Your task to perform on an android device: change the upload size in google photos Image 0: 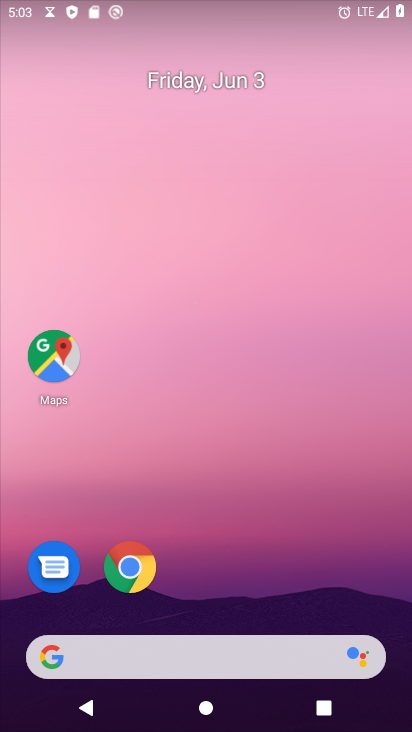
Step 0: drag from (287, 569) to (243, 116)
Your task to perform on an android device: change the upload size in google photos Image 1: 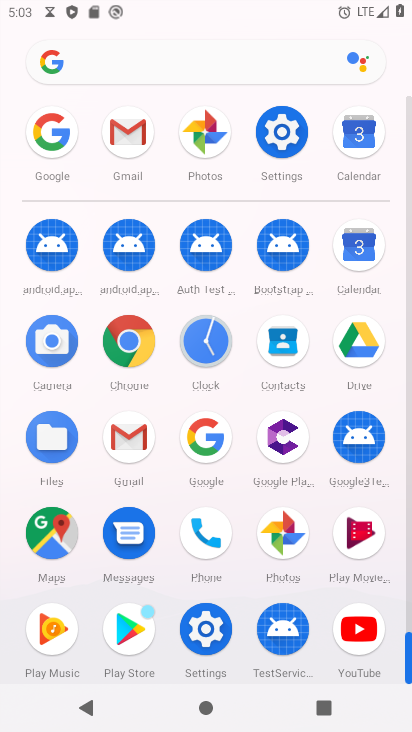
Step 1: click (208, 133)
Your task to perform on an android device: change the upload size in google photos Image 2: 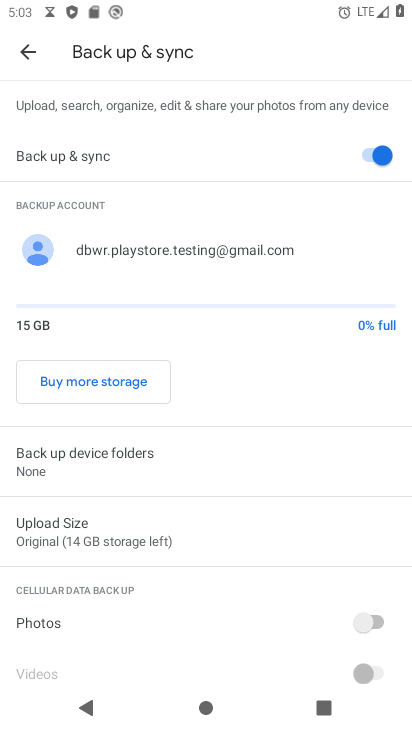
Step 2: click (67, 539)
Your task to perform on an android device: change the upload size in google photos Image 3: 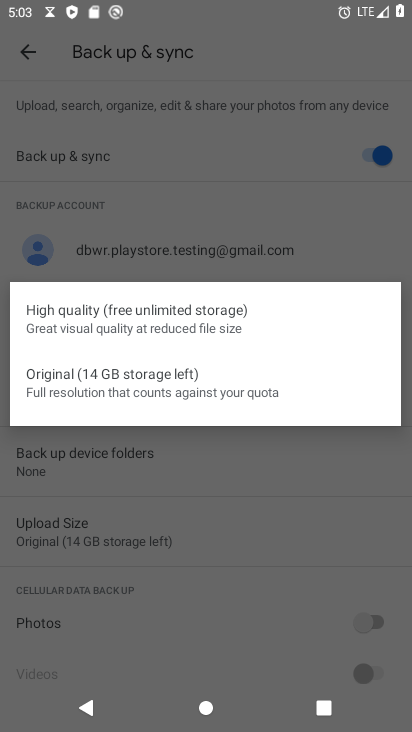
Step 3: click (85, 309)
Your task to perform on an android device: change the upload size in google photos Image 4: 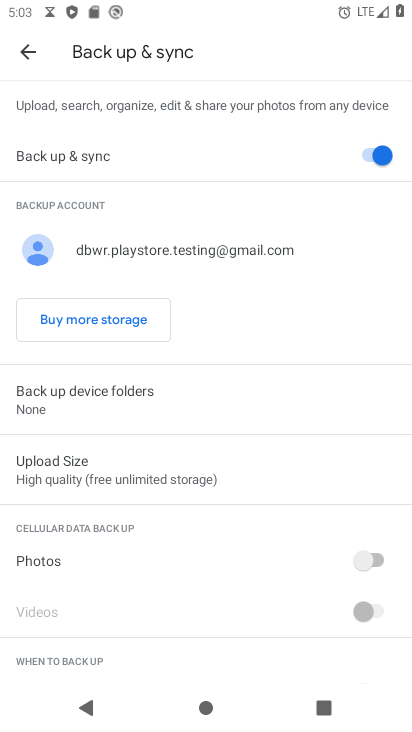
Step 4: task complete